Your task to perform on an android device: toggle show notifications on the lock screen Image 0: 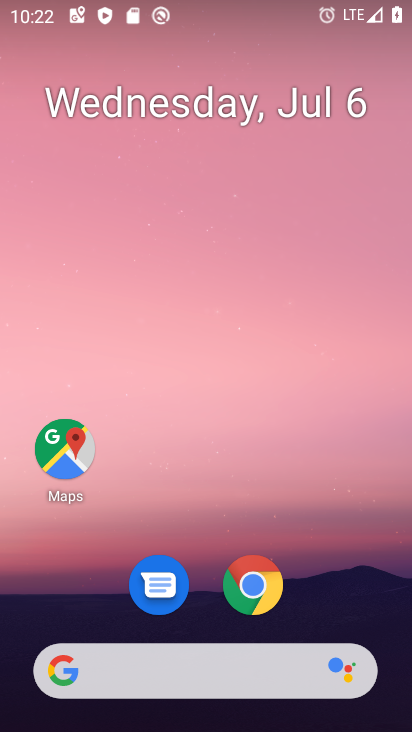
Step 0: drag from (217, 516) to (209, 49)
Your task to perform on an android device: toggle show notifications on the lock screen Image 1: 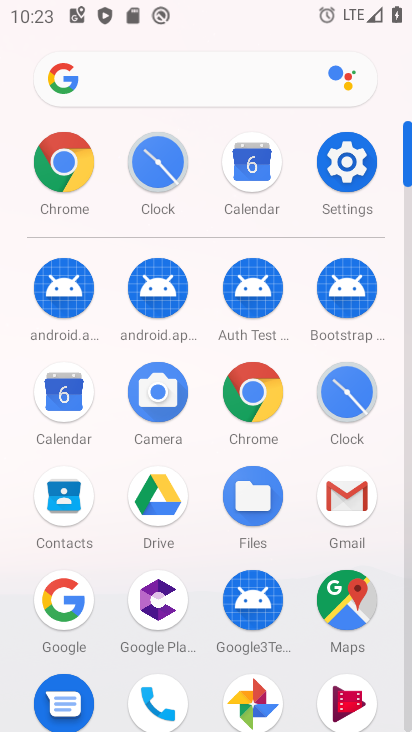
Step 1: click (346, 167)
Your task to perform on an android device: toggle show notifications on the lock screen Image 2: 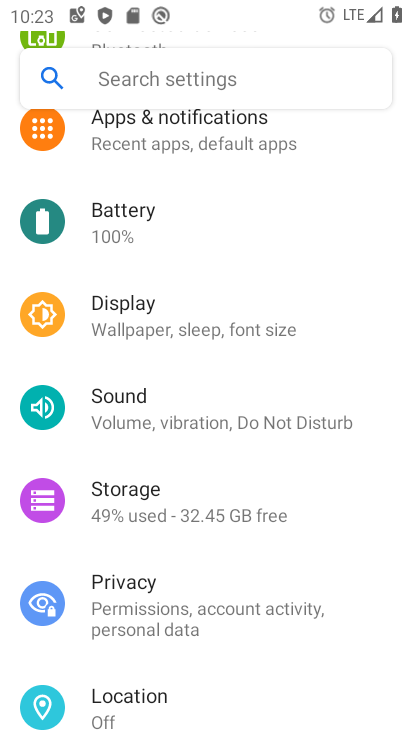
Step 2: click (238, 143)
Your task to perform on an android device: toggle show notifications on the lock screen Image 3: 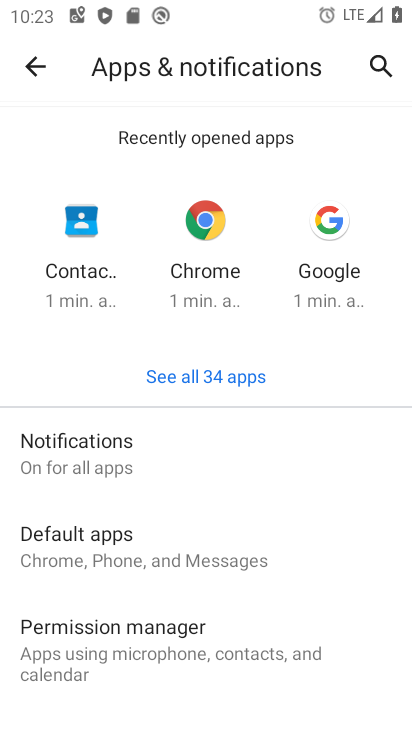
Step 3: click (100, 447)
Your task to perform on an android device: toggle show notifications on the lock screen Image 4: 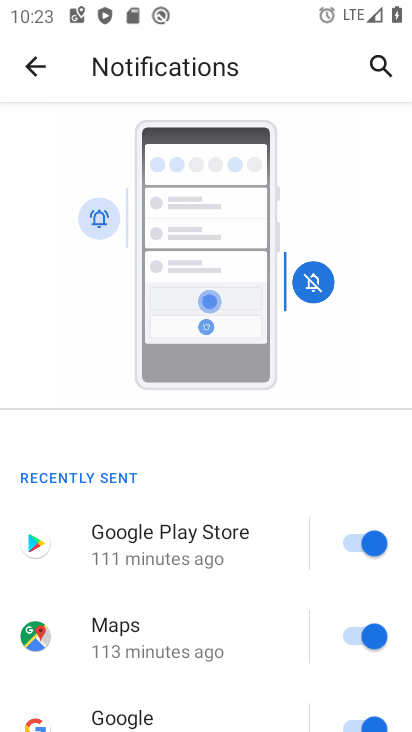
Step 4: drag from (244, 502) to (262, 164)
Your task to perform on an android device: toggle show notifications on the lock screen Image 5: 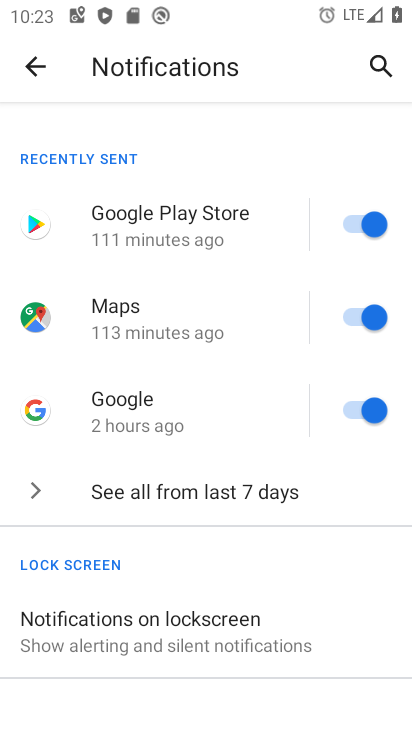
Step 5: click (178, 621)
Your task to perform on an android device: toggle show notifications on the lock screen Image 6: 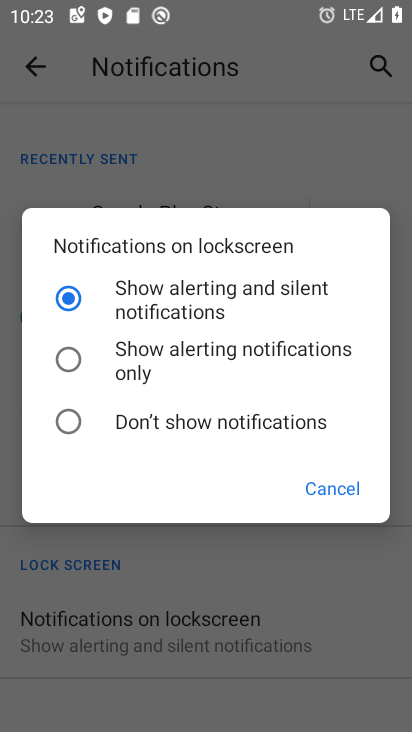
Step 6: click (74, 426)
Your task to perform on an android device: toggle show notifications on the lock screen Image 7: 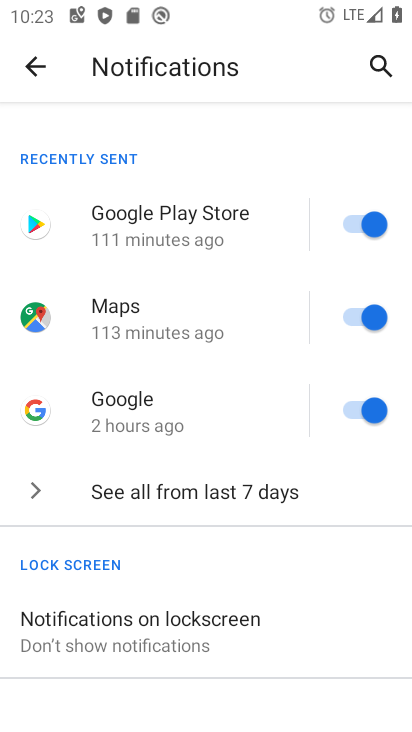
Step 7: click (226, 606)
Your task to perform on an android device: toggle show notifications on the lock screen Image 8: 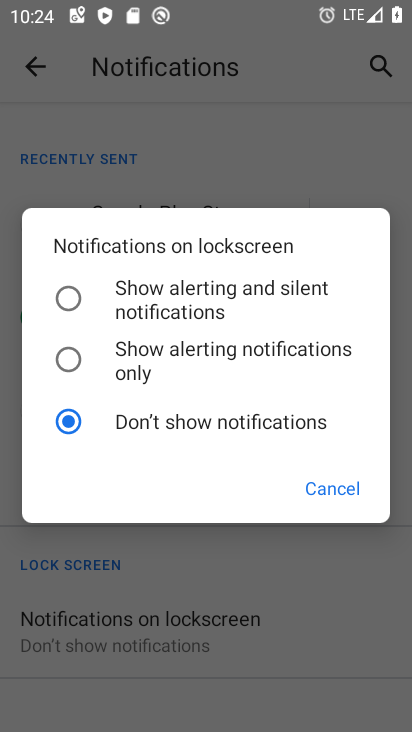
Step 8: click (351, 480)
Your task to perform on an android device: toggle show notifications on the lock screen Image 9: 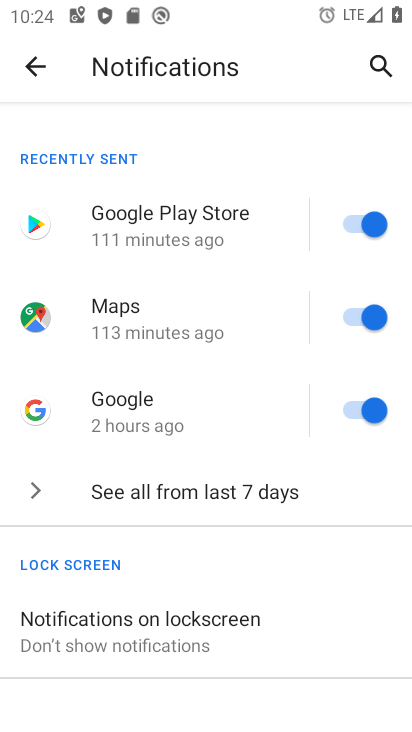
Step 9: task complete